Your task to perform on an android device: turn off data saver in the chrome app Image 0: 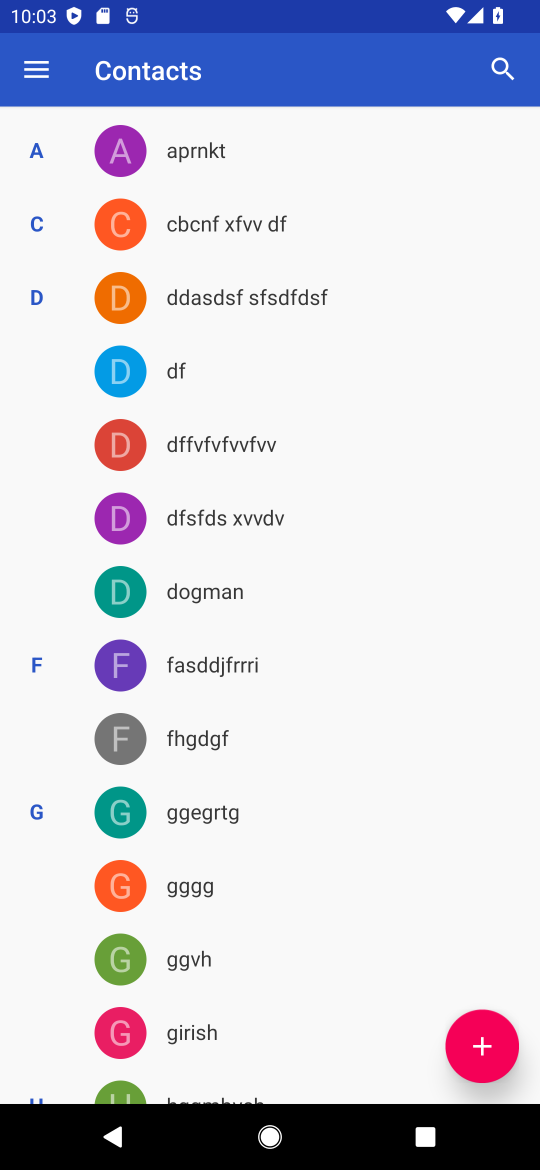
Step 0: task complete